Your task to perform on an android device: Add "macbook pro 13 inch" to the cart on costco.com Image 0: 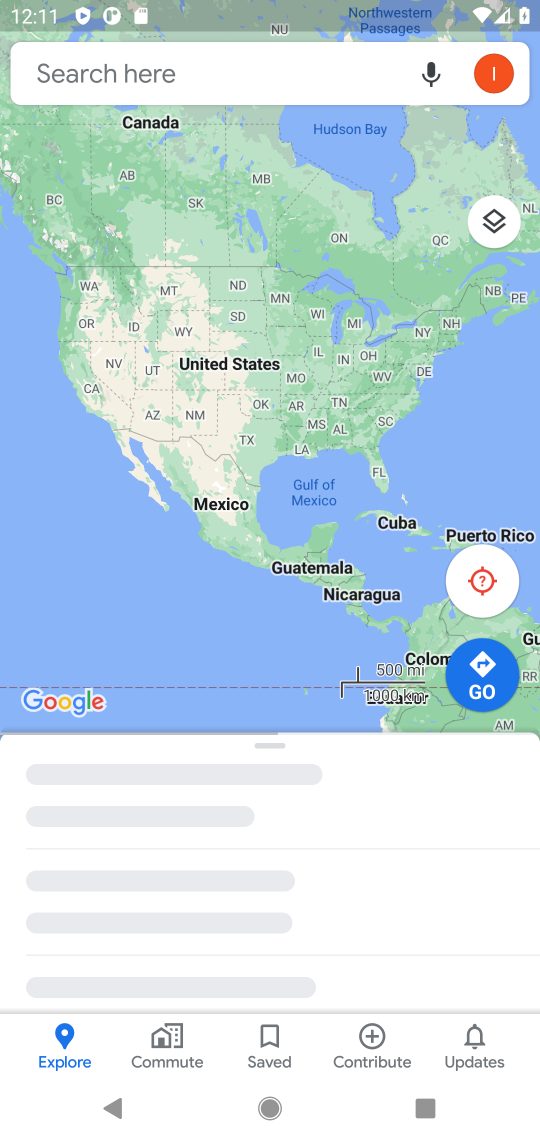
Step 0: press home button
Your task to perform on an android device: Add "macbook pro 13 inch" to the cart on costco.com Image 1: 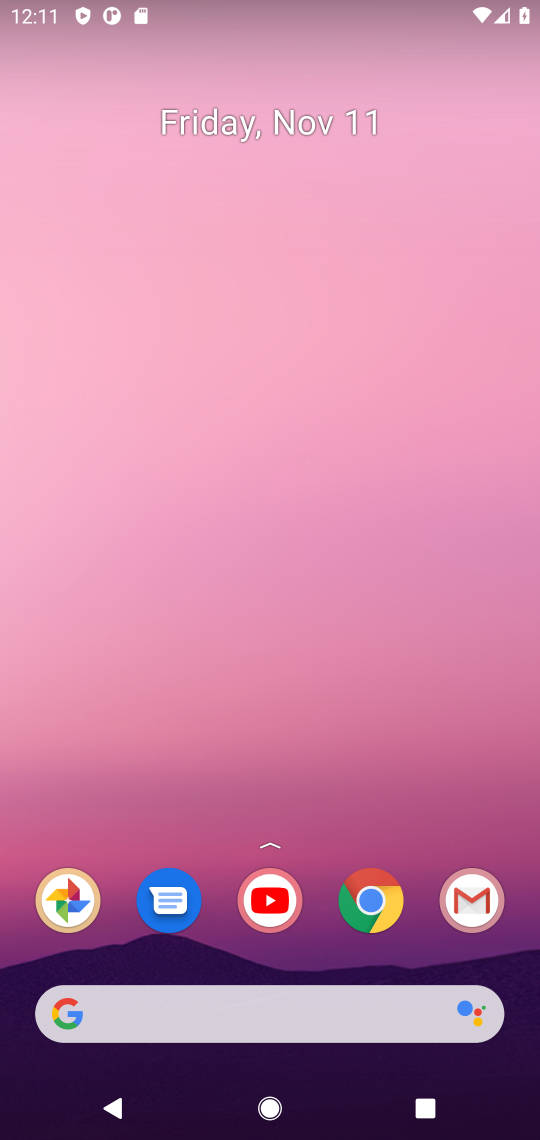
Step 1: click (367, 904)
Your task to perform on an android device: Add "macbook pro 13 inch" to the cart on costco.com Image 2: 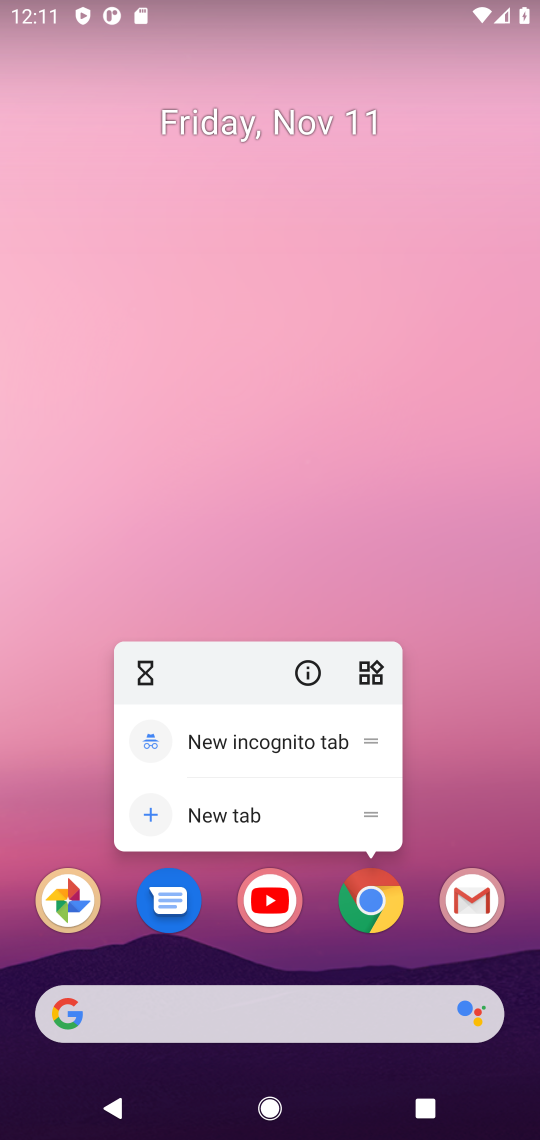
Step 2: click (367, 902)
Your task to perform on an android device: Add "macbook pro 13 inch" to the cart on costco.com Image 3: 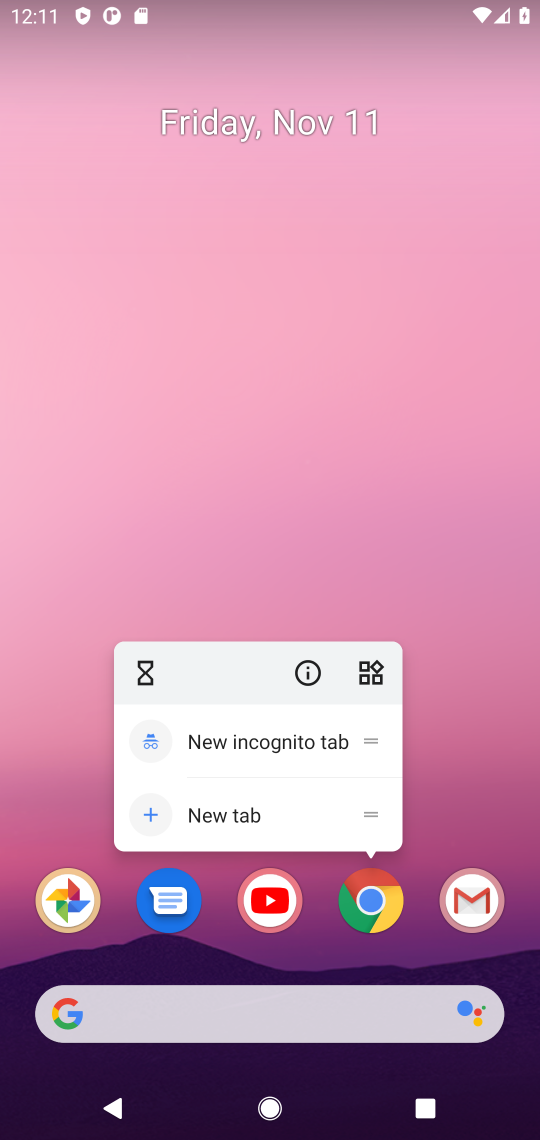
Step 3: click (367, 904)
Your task to perform on an android device: Add "macbook pro 13 inch" to the cart on costco.com Image 4: 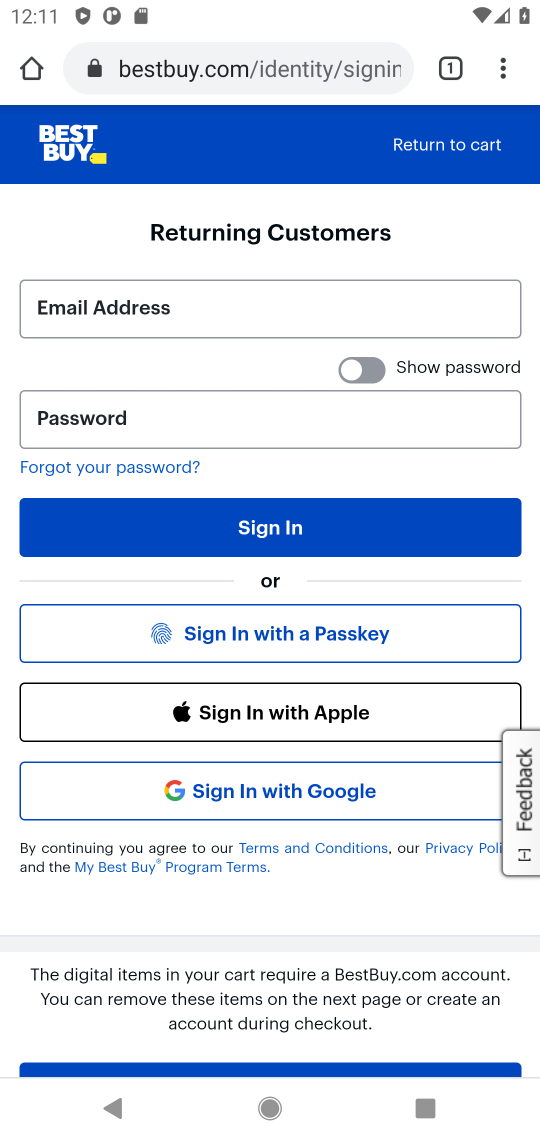
Step 4: click (326, 62)
Your task to perform on an android device: Add "macbook pro 13 inch" to the cart on costco.com Image 5: 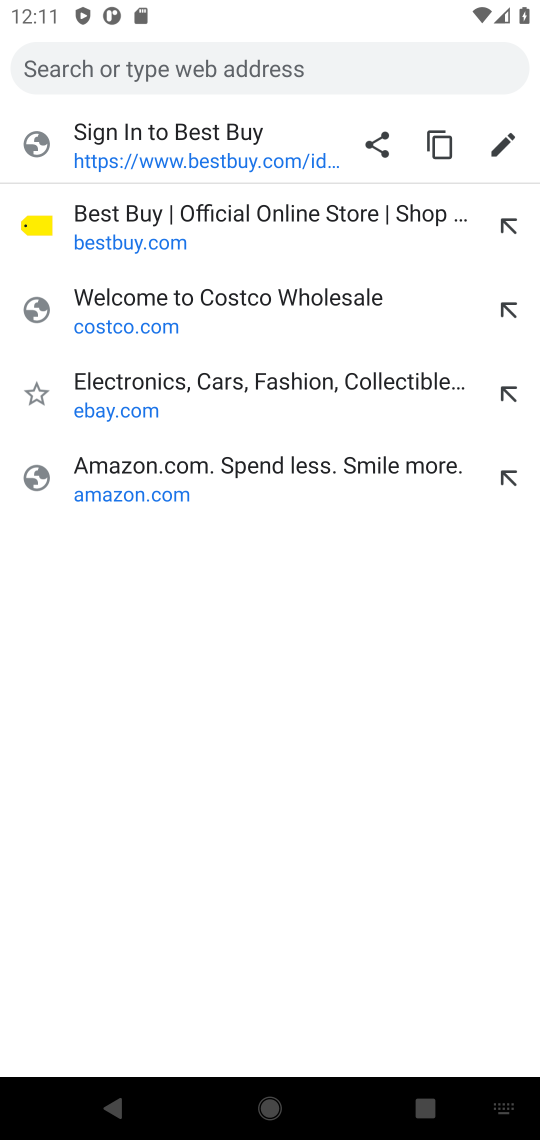
Step 5: click (114, 324)
Your task to perform on an android device: Add "macbook pro 13 inch" to the cart on costco.com Image 6: 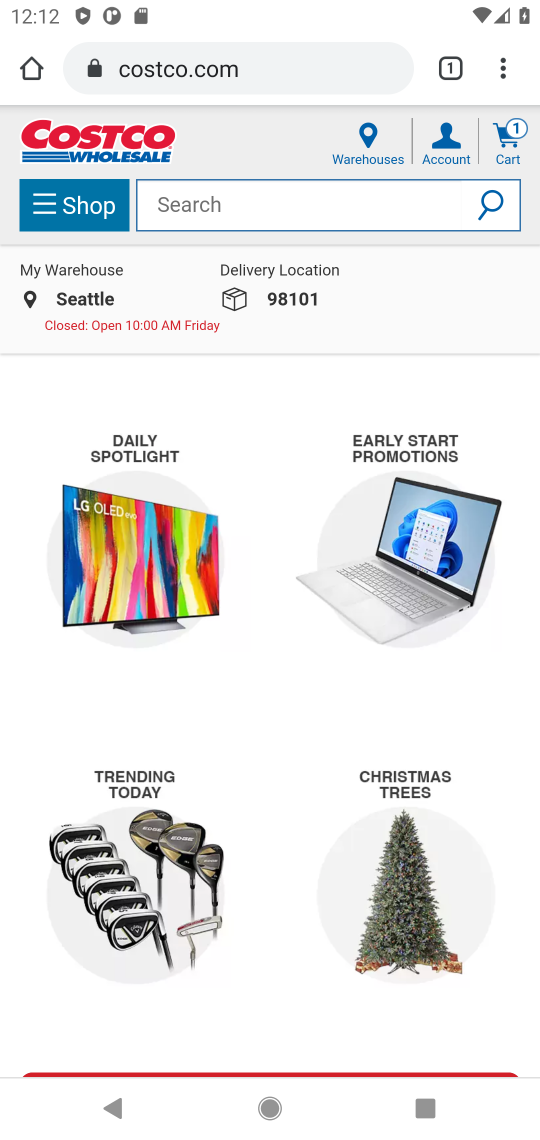
Step 6: click (233, 194)
Your task to perform on an android device: Add "macbook pro 13 inch" to the cart on costco.com Image 7: 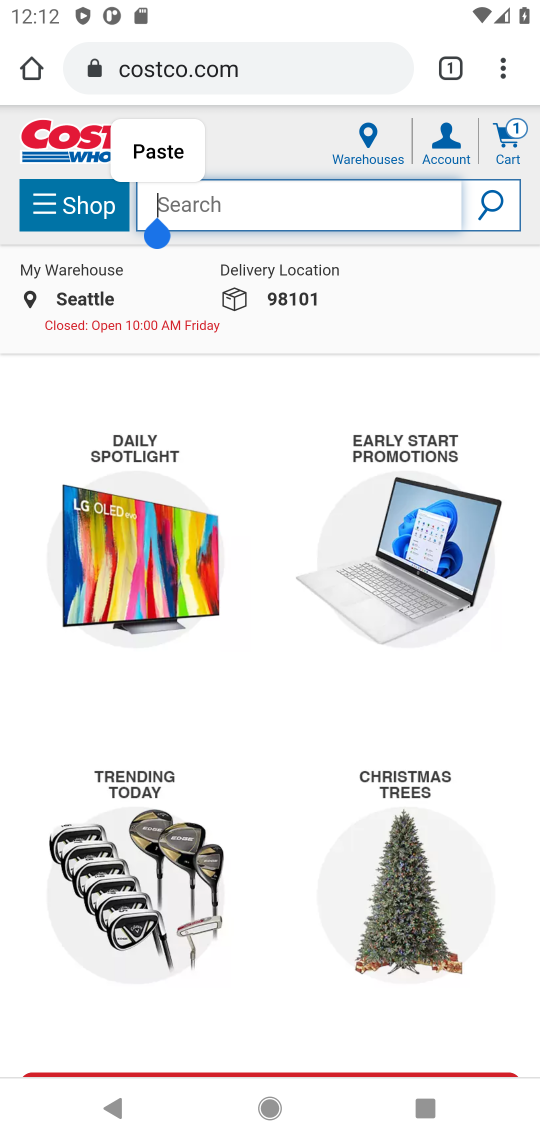
Step 7: type "macbook pro 13 inch"
Your task to perform on an android device: Add "macbook pro 13 inch" to the cart on costco.com Image 8: 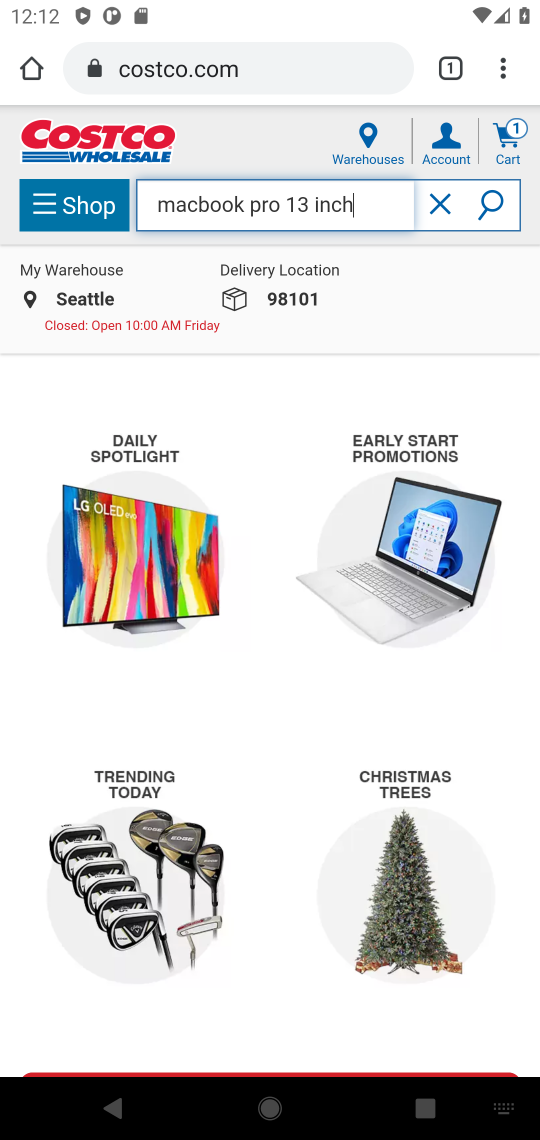
Step 8: press enter
Your task to perform on an android device: Add "macbook pro 13 inch" to the cart on costco.com Image 9: 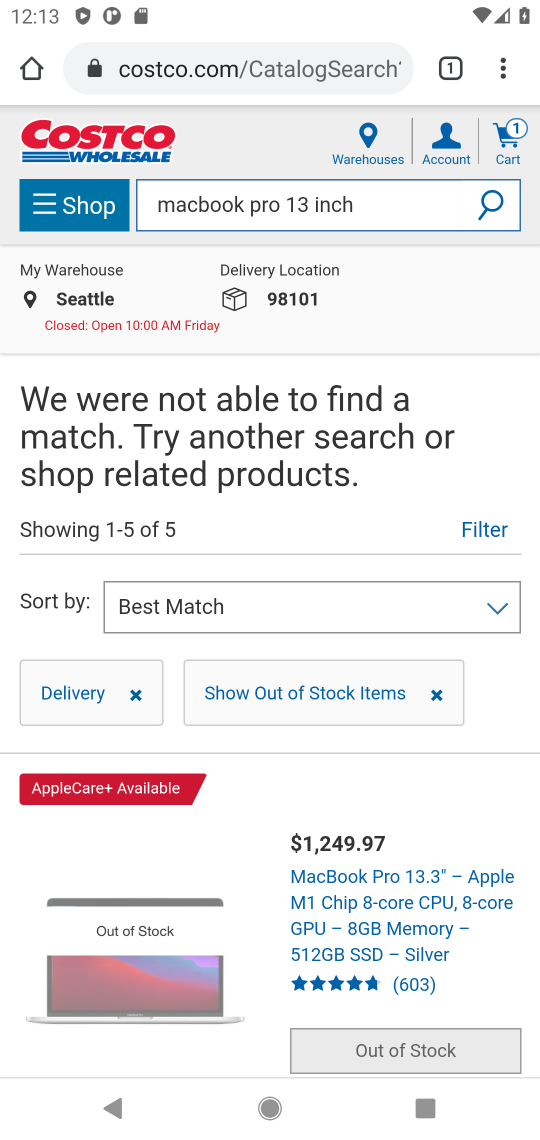
Step 9: task complete